Your task to perform on an android device: When is my next appointment? Image 0: 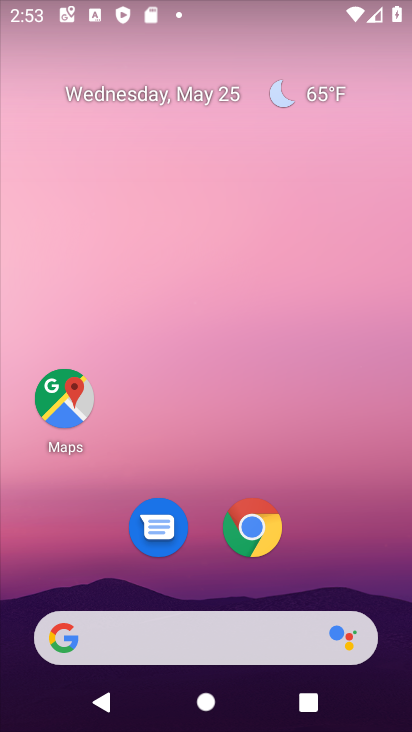
Step 0: drag from (345, 626) to (300, 138)
Your task to perform on an android device: When is my next appointment? Image 1: 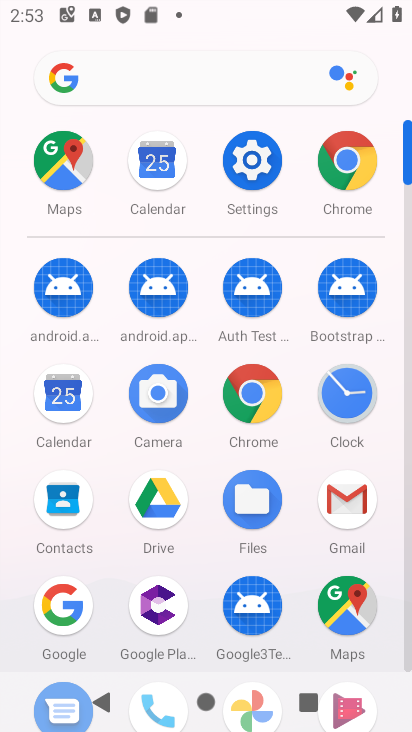
Step 1: click (46, 412)
Your task to perform on an android device: When is my next appointment? Image 2: 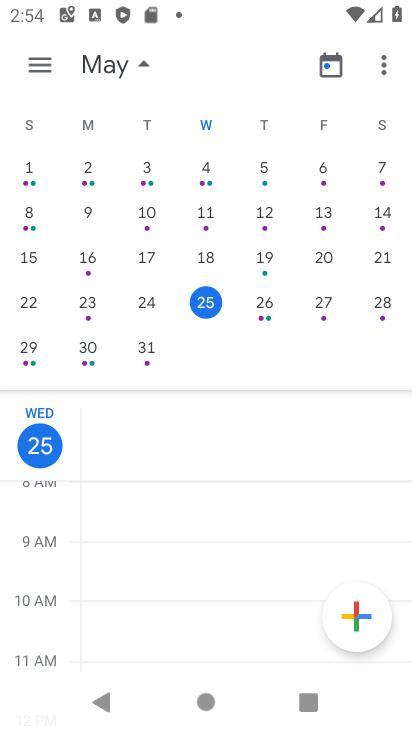
Step 2: task complete